Your task to perform on an android device: Go to wifi settings Image 0: 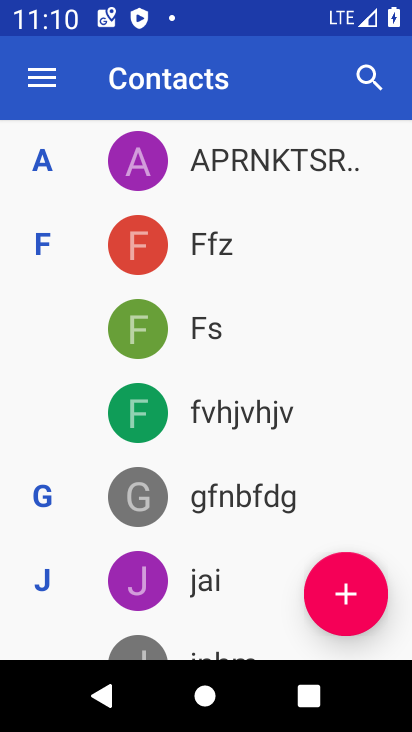
Step 0: press back button
Your task to perform on an android device: Go to wifi settings Image 1: 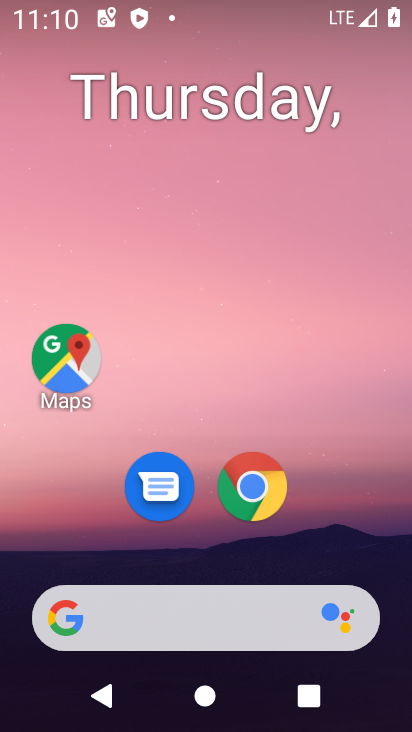
Step 1: drag from (107, 8) to (157, 552)
Your task to perform on an android device: Go to wifi settings Image 2: 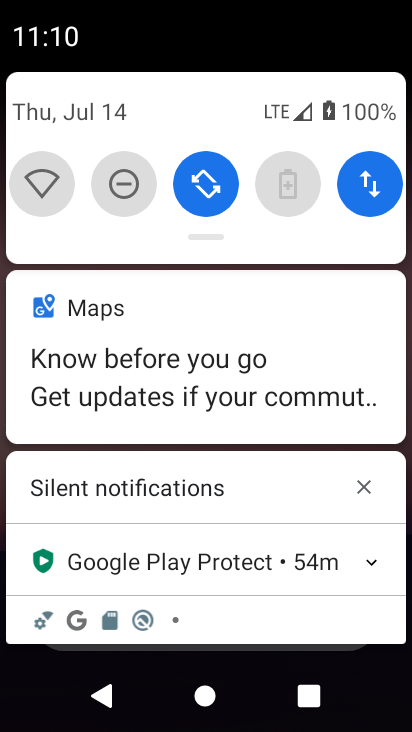
Step 2: click (44, 198)
Your task to perform on an android device: Go to wifi settings Image 3: 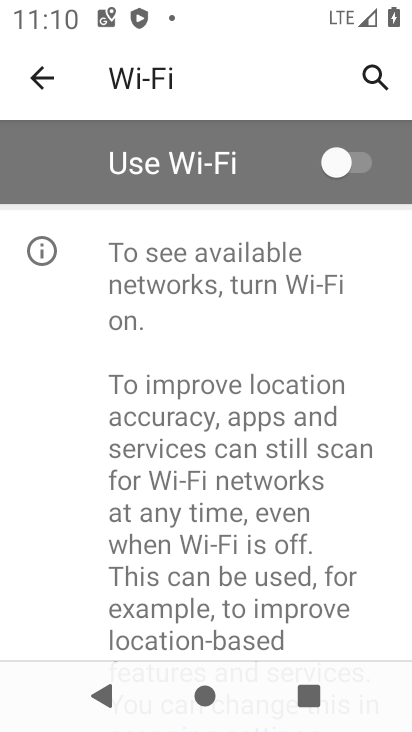
Step 3: task complete